Your task to perform on an android device: clear history in the chrome app Image 0: 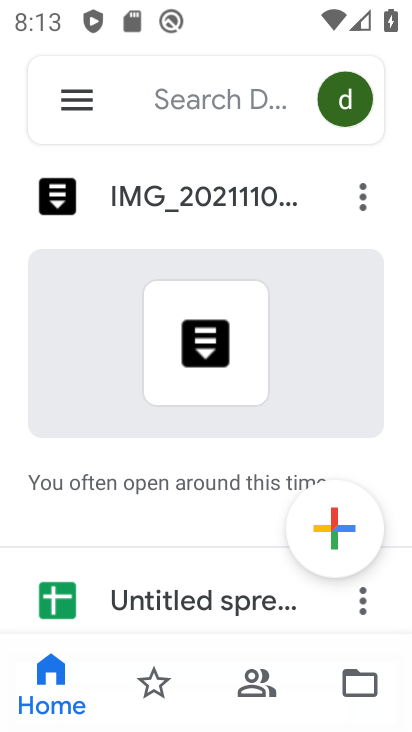
Step 0: press home button
Your task to perform on an android device: clear history in the chrome app Image 1: 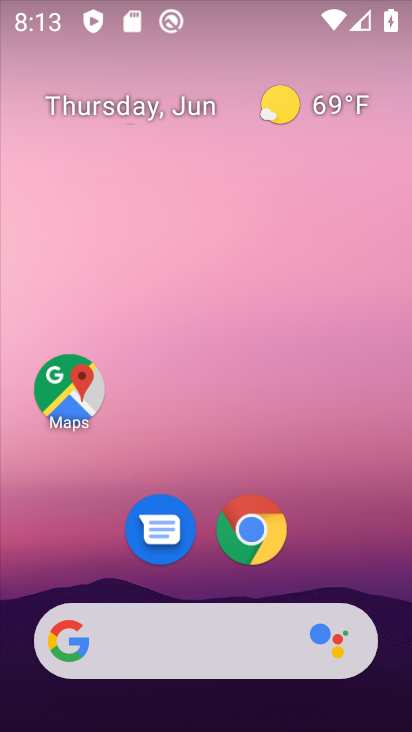
Step 1: click (279, 523)
Your task to perform on an android device: clear history in the chrome app Image 2: 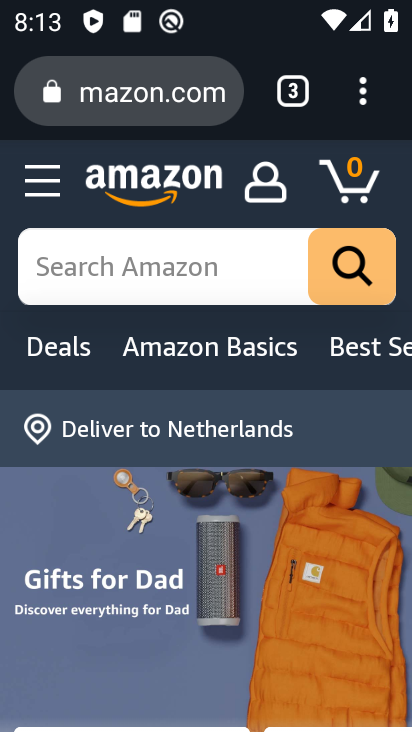
Step 2: click (361, 90)
Your task to perform on an android device: clear history in the chrome app Image 3: 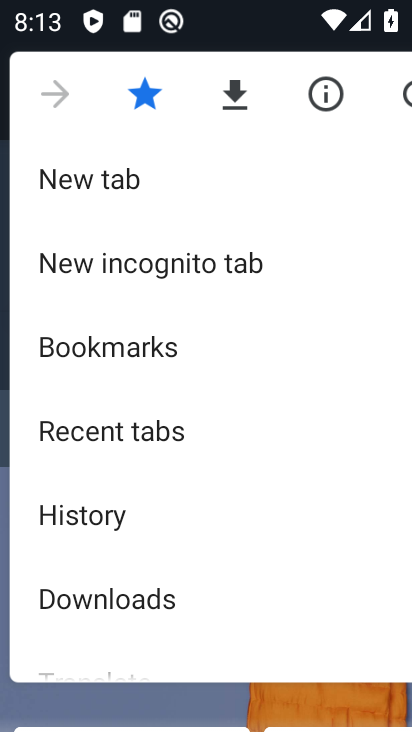
Step 3: click (139, 516)
Your task to perform on an android device: clear history in the chrome app Image 4: 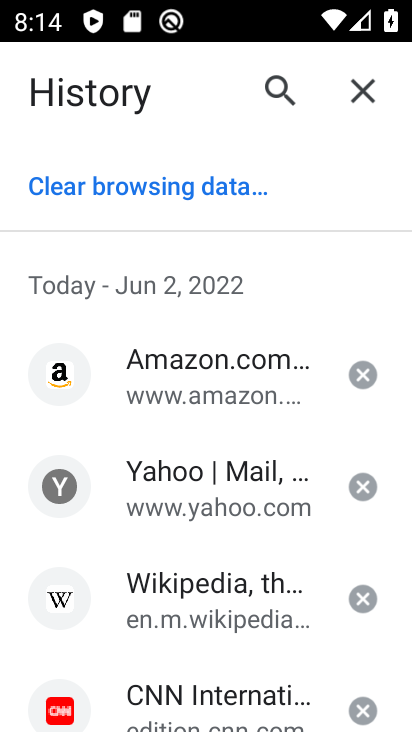
Step 4: click (103, 176)
Your task to perform on an android device: clear history in the chrome app Image 5: 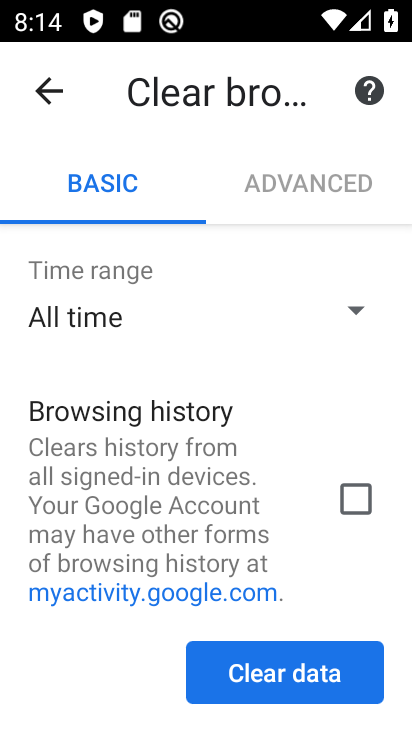
Step 5: click (370, 495)
Your task to perform on an android device: clear history in the chrome app Image 6: 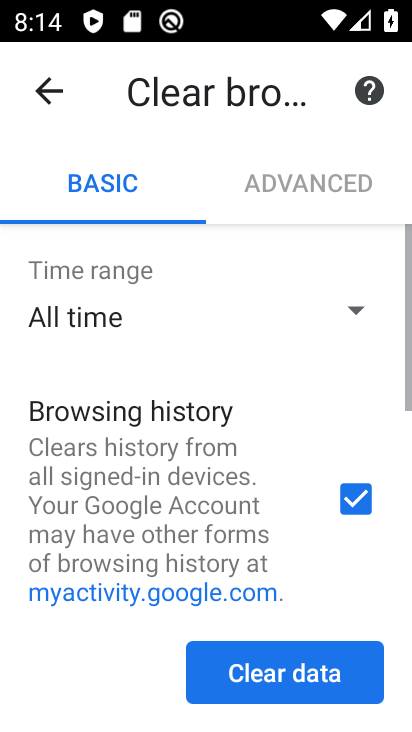
Step 6: click (305, 658)
Your task to perform on an android device: clear history in the chrome app Image 7: 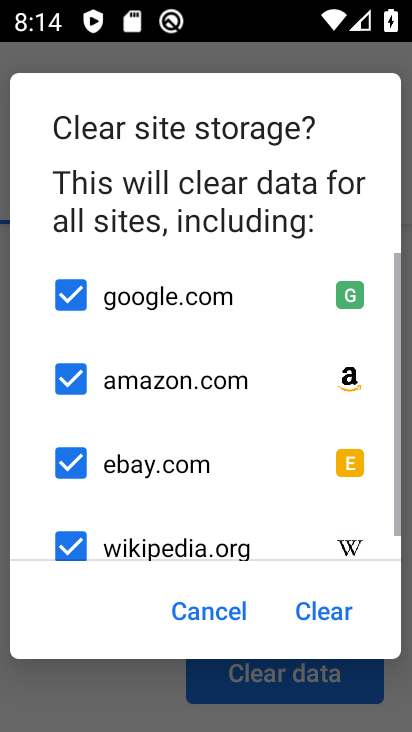
Step 7: click (326, 604)
Your task to perform on an android device: clear history in the chrome app Image 8: 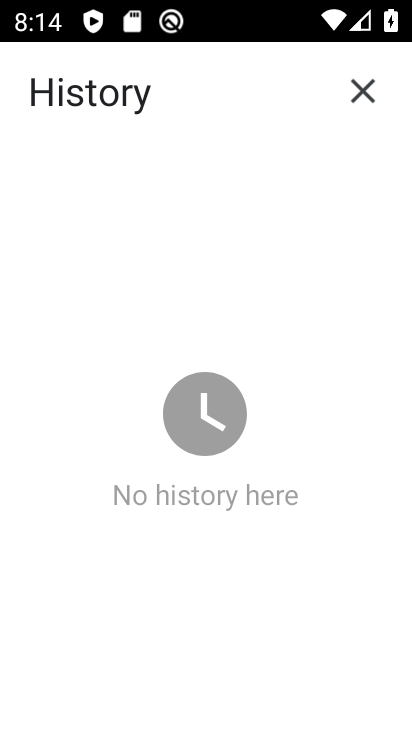
Step 8: task complete